Your task to perform on an android device: toggle notifications settings in the gmail app Image 0: 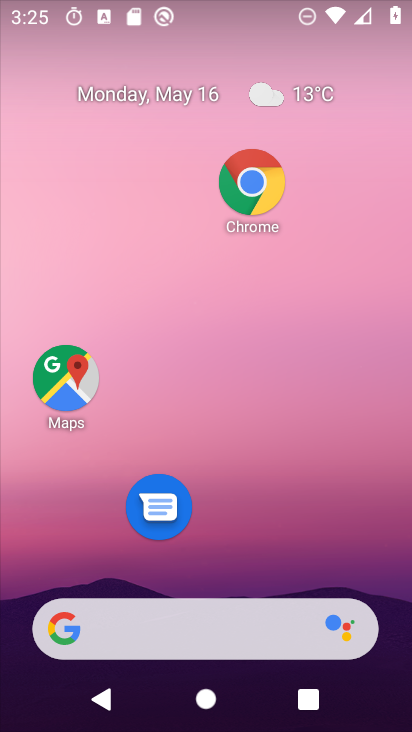
Step 0: drag from (205, 322) to (178, 138)
Your task to perform on an android device: toggle notifications settings in the gmail app Image 1: 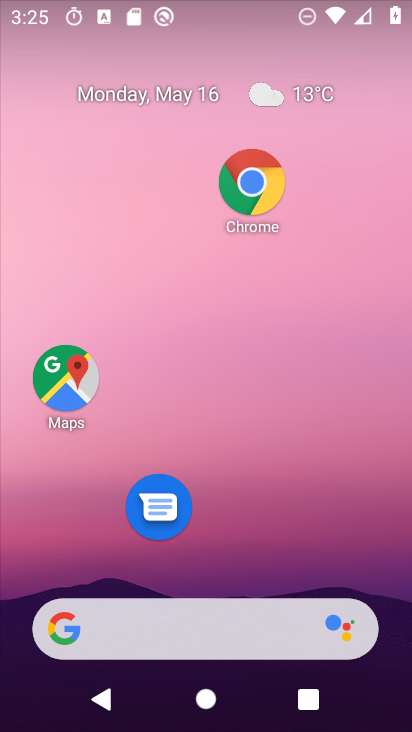
Step 1: drag from (227, 434) to (149, 112)
Your task to perform on an android device: toggle notifications settings in the gmail app Image 2: 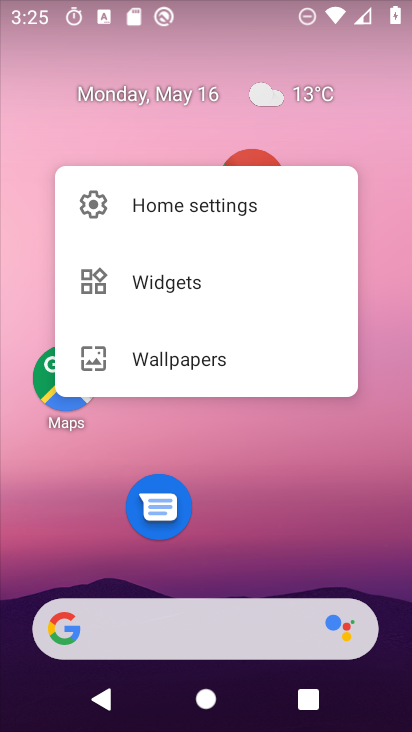
Step 2: click (297, 526)
Your task to perform on an android device: toggle notifications settings in the gmail app Image 3: 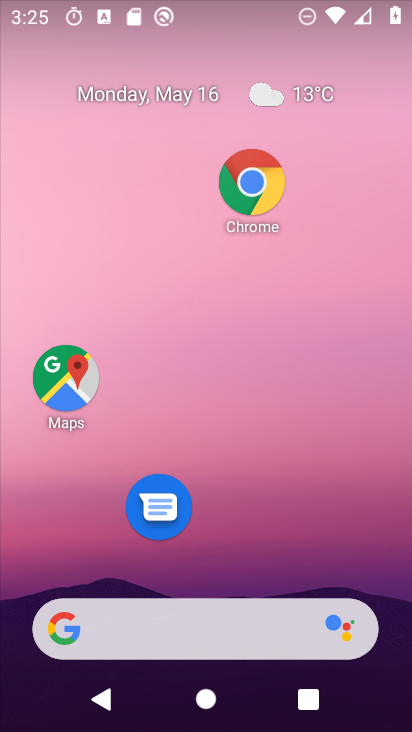
Step 3: drag from (232, 579) to (189, 117)
Your task to perform on an android device: toggle notifications settings in the gmail app Image 4: 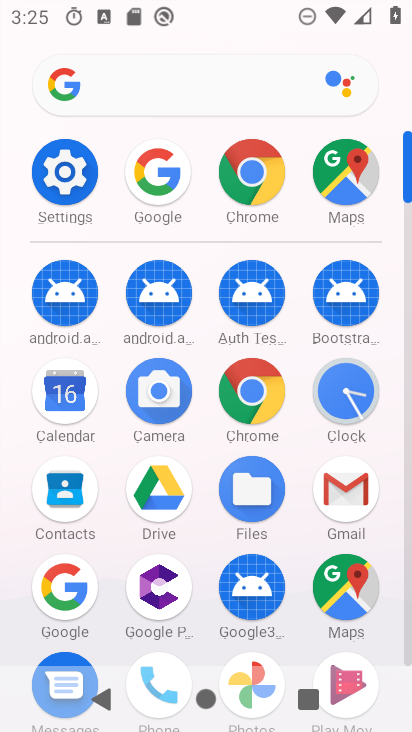
Step 4: click (354, 492)
Your task to perform on an android device: toggle notifications settings in the gmail app Image 5: 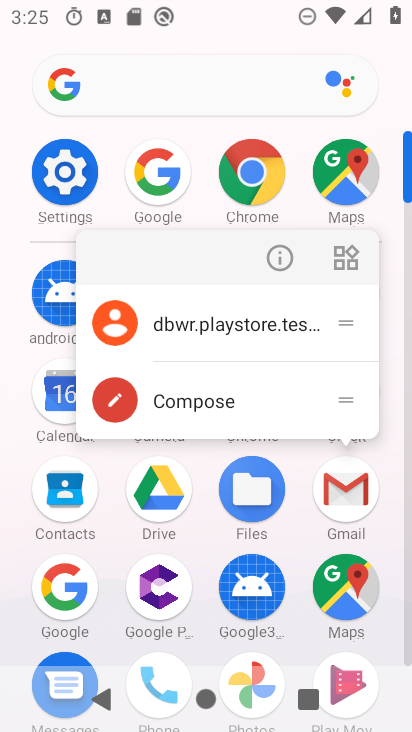
Step 5: click (347, 503)
Your task to perform on an android device: toggle notifications settings in the gmail app Image 6: 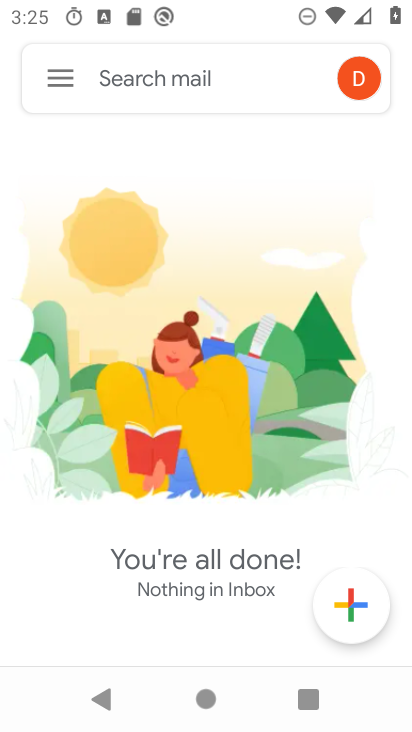
Step 6: click (45, 84)
Your task to perform on an android device: toggle notifications settings in the gmail app Image 7: 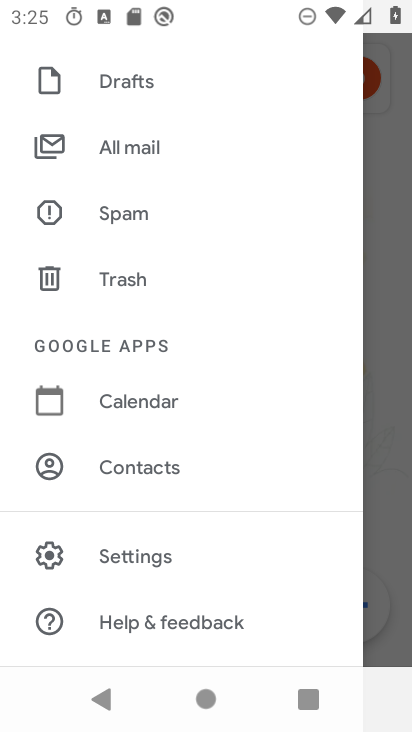
Step 7: click (148, 567)
Your task to perform on an android device: toggle notifications settings in the gmail app Image 8: 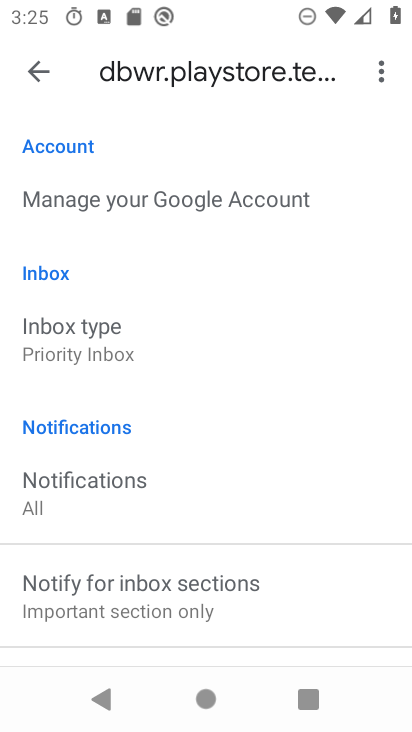
Step 8: drag from (196, 512) to (226, 305)
Your task to perform on an android device: toggle notifications settings in the gmail app Image 9: 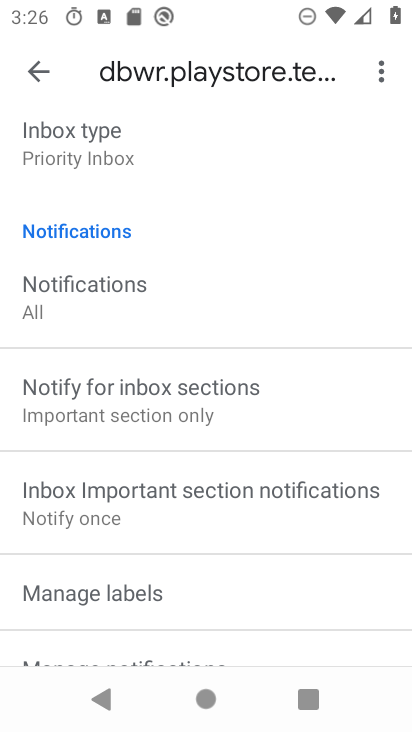
Step 9: click (197, 319)
Your task to perform on an android device: toggle notifications settings in the gmail app Image 10: 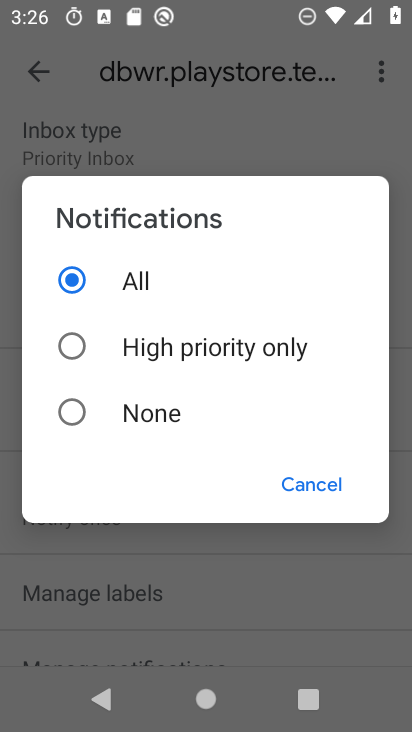
Step 10: click (190, 425)
Your task to perform on an android device: toggle notifications settings in the gmail app Image 11: 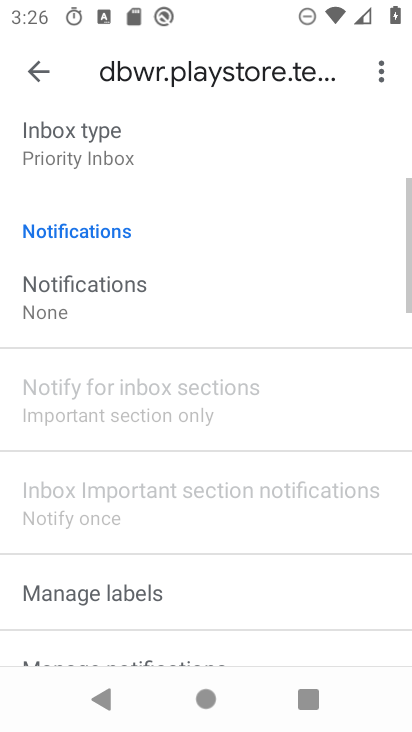
Step 11: task complete